Your task to perform on an android device: turn off sleep mode Image 0: 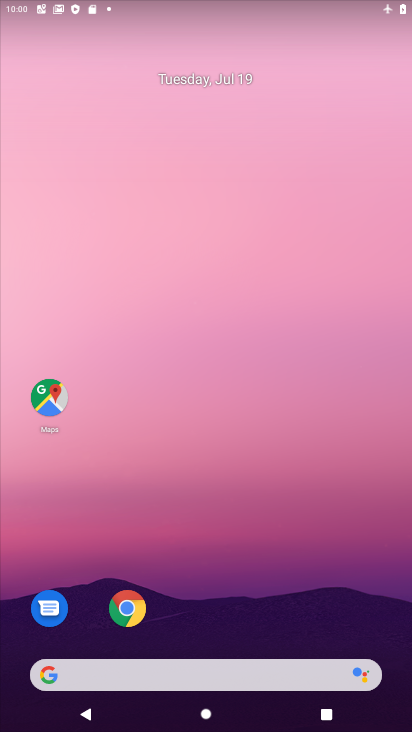
Step 0: drag from (286, 578) to (243, 49)
Your task to perform on an android device: turn off sleep mode Image 1: 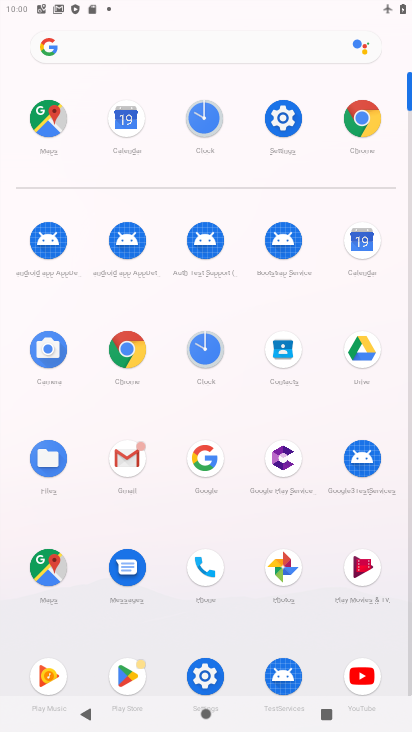
Step 1: click (268, 116)
Your task to perform on an android device: turn off sleep mode Image 2: 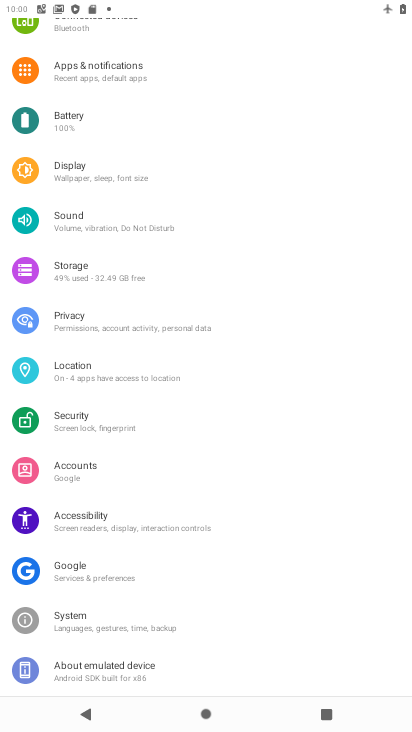
Step 2: click (92, 173)
Your task to perform on an android device: turn off sleep mode Image 3: 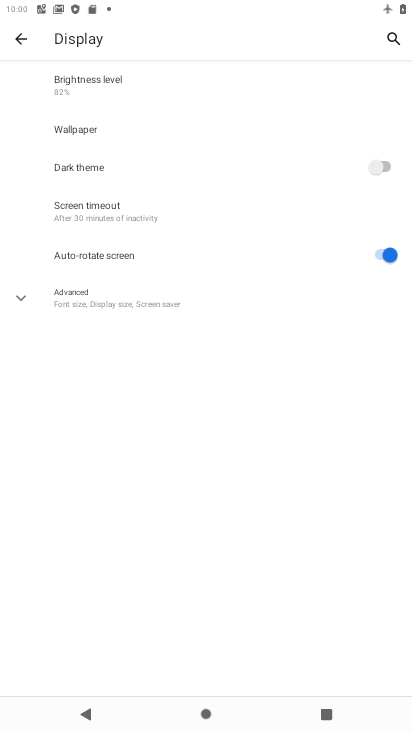
Step 3: task complete